Your task to perform on an android device: change keyboard looks Image 0: 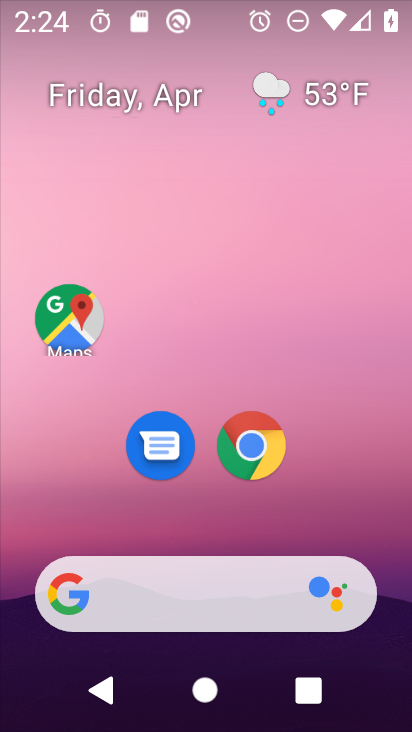
Step 0: drag from (363, 517) to (380, 118)
Your task to perform on an android device: change keyboard looks Image 1: 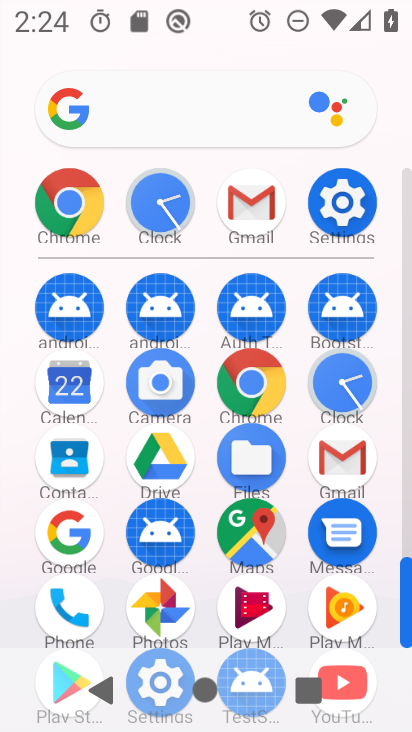
Step 1: click (343, 178)
Your task to perform on an android device: change keyboard looks Image 2: 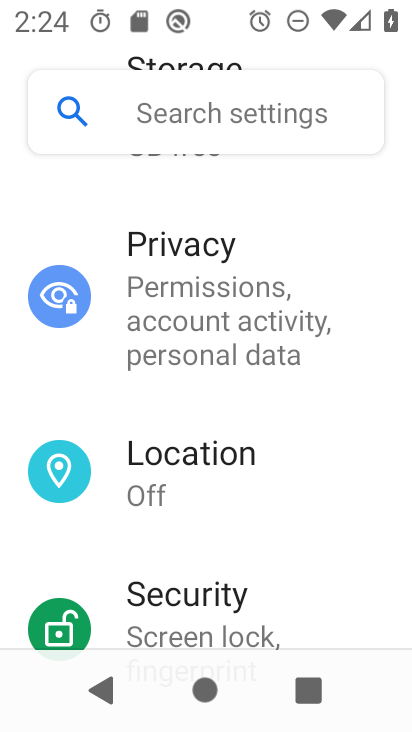
Step 2: drag from (350, 540) to (360, 443)
Your task to perform on an android device: change keyboard looks Image 3: 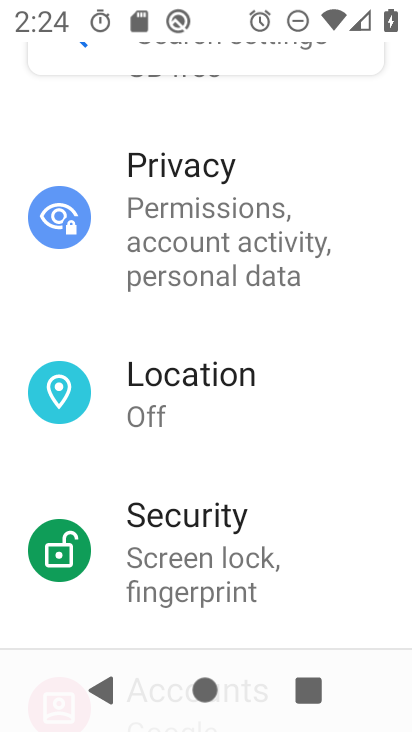
Step 3: drag from (360, 546) to (361, 447)
Your task to perform on an android device: change keyboard looks Image 4: 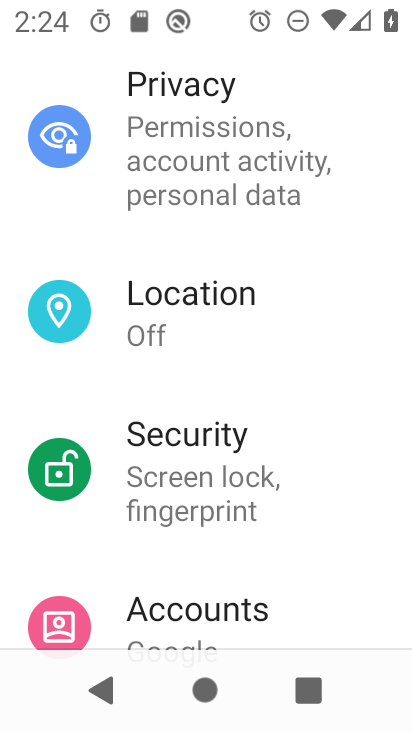
Step 4: drag from (334, 545) to (347, 360)
Your task to perform on an android device: change keyboard looks Image 5: 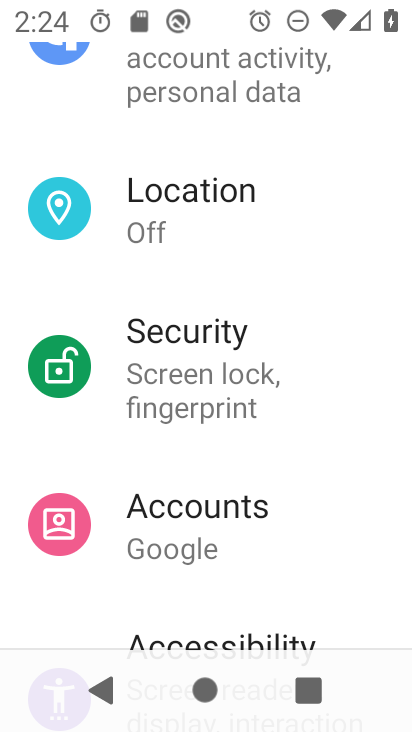
Step 5: drag from (350, 549) to (355, 356)
Your task to perform on an android device: change keyboard looks Image 6: 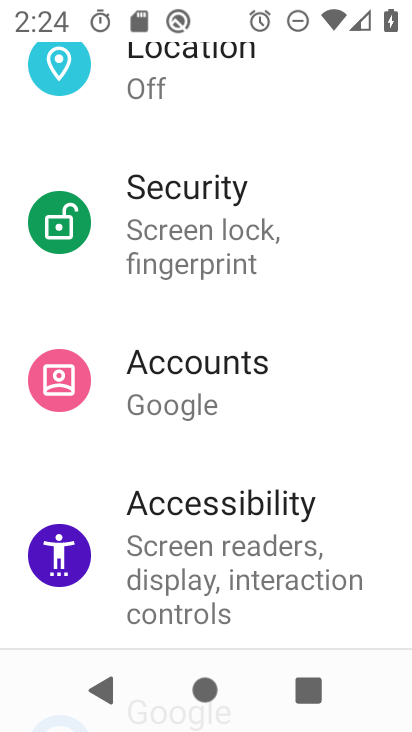
Step 6: drag from (350, 510) to (362, 340)
Your task to perform on an android device: change keyboard looks Image 7: 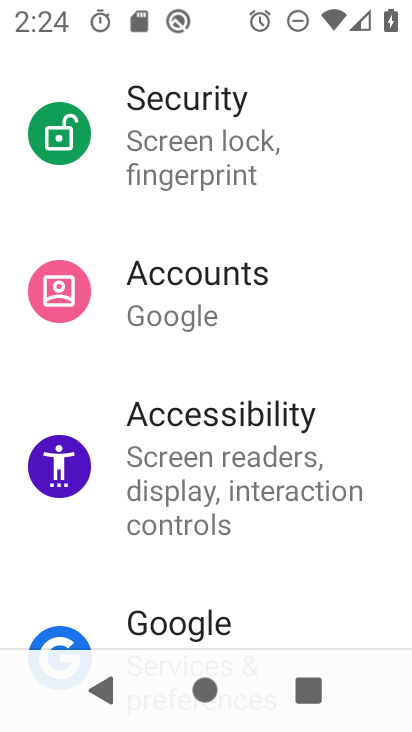
Step 7: drag from (320, 483) to (358, 311)
Your task to perform on an android device: change keyboard looks Image 8: 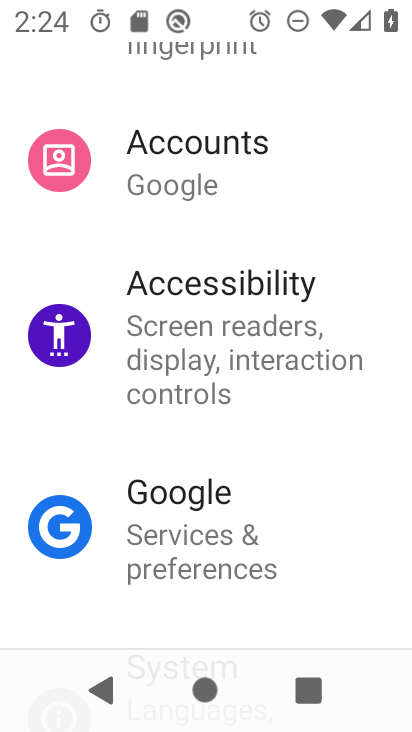
Step 8: drag from (326, 546) to (354, 298)
Your task to perform on an android device: change keyboard looks Image 9: 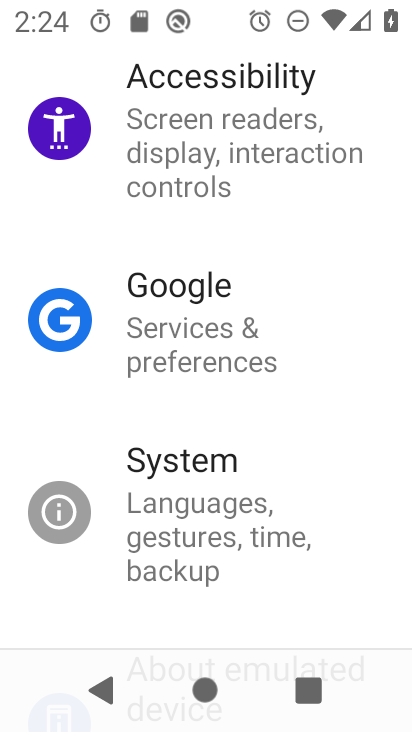
Step 9: drag from (324, 565) to (341, 433)
Your task to perform on an android device: change keyboard looks Image 10: 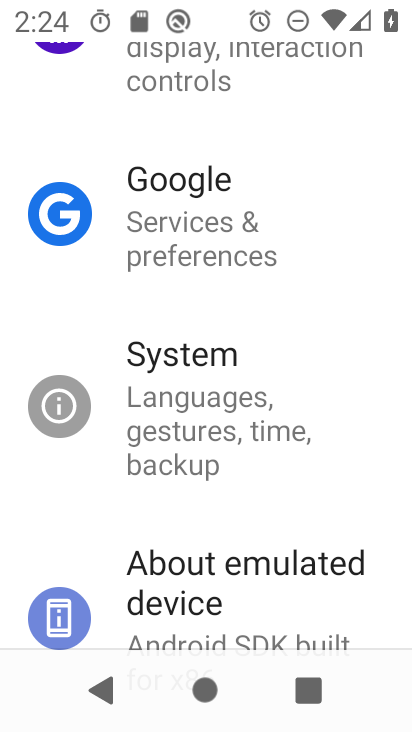
Step 10: click (201, 413)
Your task to perform on an android device: change keyboard looks Image 11: 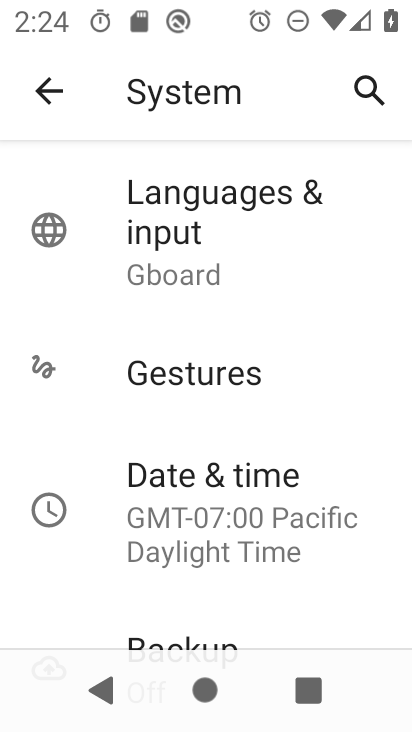
Step 11: click (184, 228)
Your task to perform on an android device: change keyboard looks Image 12: 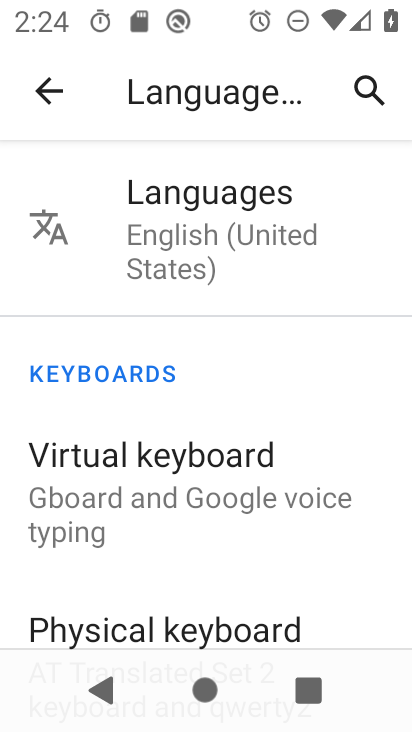
Step 12: click (241, 476)
Your task to perform on an android device: change keyboard looks Image 13: 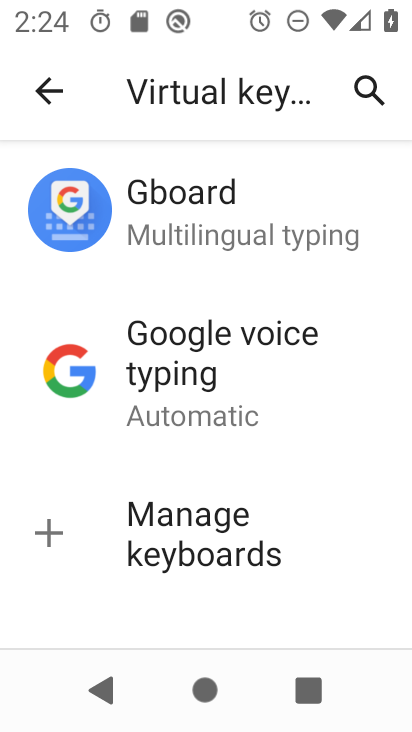
Step 13: click (214, 221)
Your task to perform on an android device: change keyboard looks Image 14: 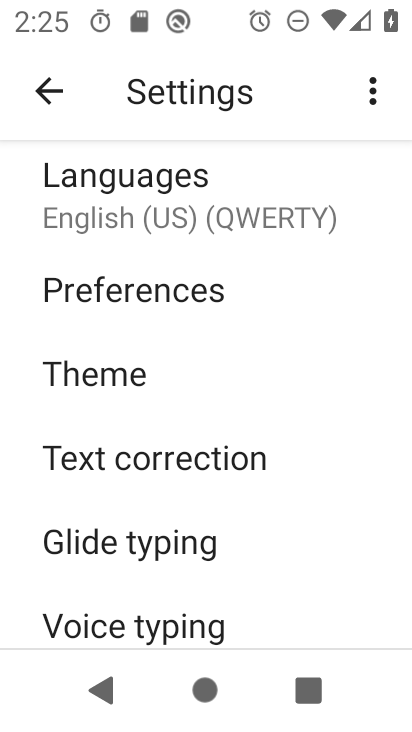
Step 14: click (159, 383)
Your task to perform on an android device: change keyboard looks Image 15: 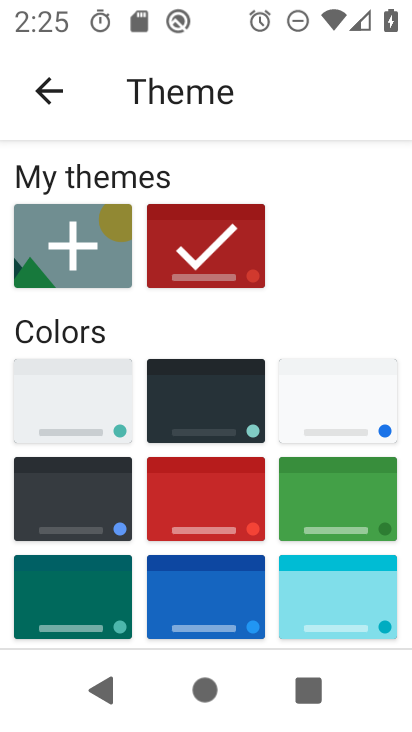
Step 15: click (203, 509)
Your task to perform on an android device: change keyboard looks Image 16: 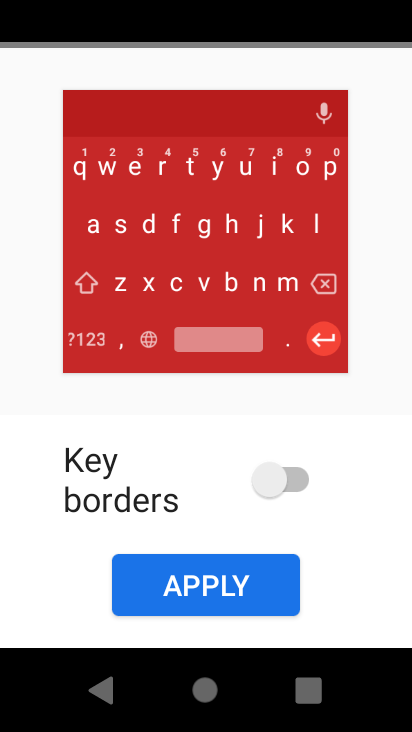
Step 16: click (222, 575)
Your task to perform on an android device: change keyboard looks Image 17: 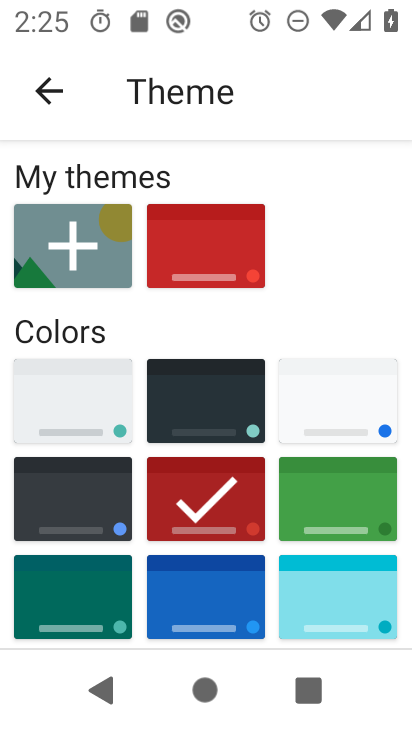
Step 17: task complete